Your task to perform on an android device: check android version Image 0: 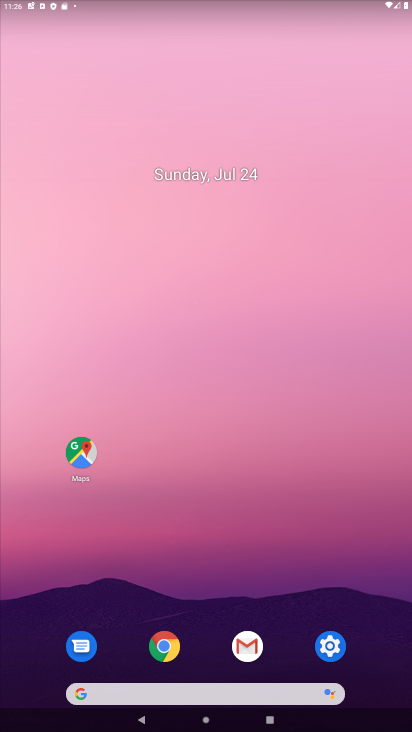
Step 0: click (323, 646)
Your task to perform on an android device: check android version Image 1: 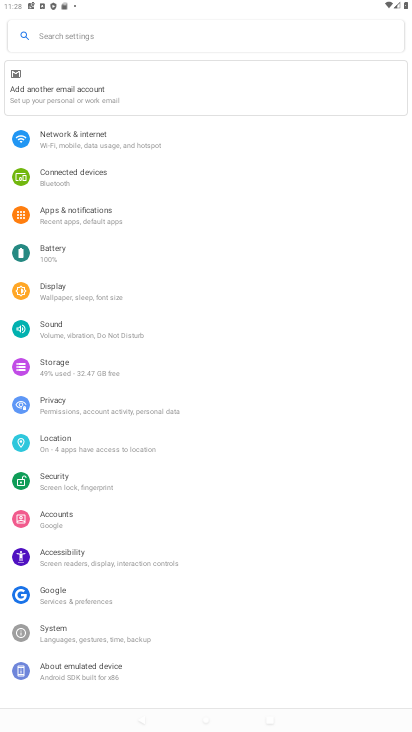
Step 1: click (91, 33)
Your task to perform on an android device: check android version Image 2: 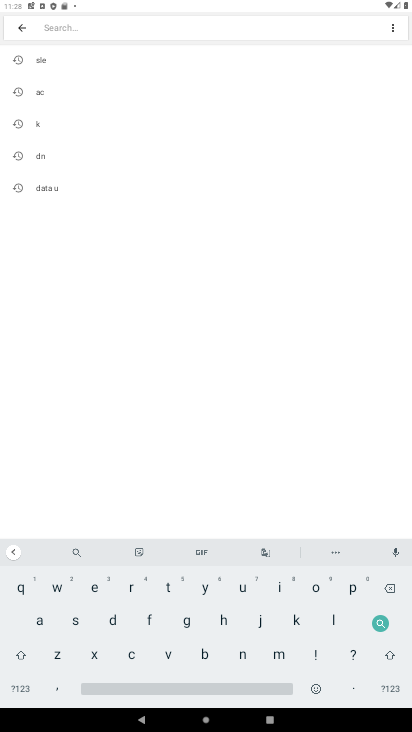
Step 2: click (39, 612)
Your task to perform on an android device: check android version Image 3: 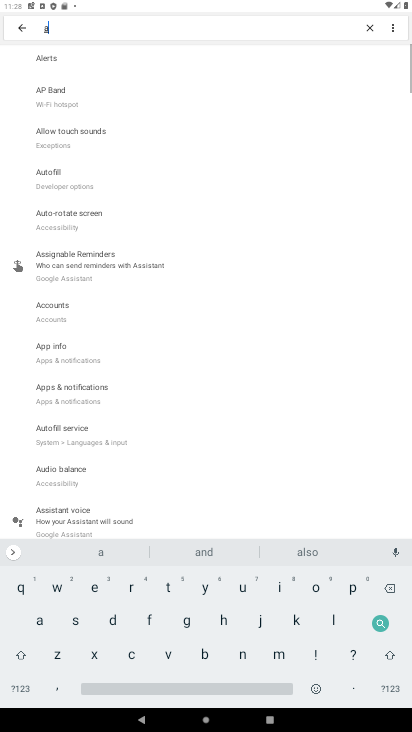
Step 3: click (232, 653)
Your task to perform on an android device: check android version Image 4: 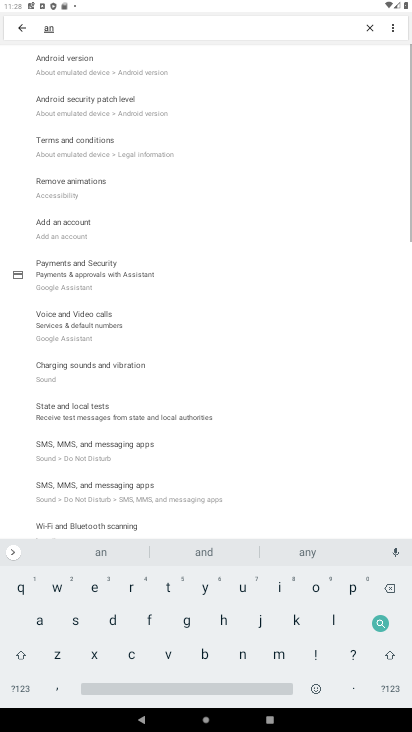
Step 4: click (100, 61)
Your task to perform on an android device: check android version Image 5: 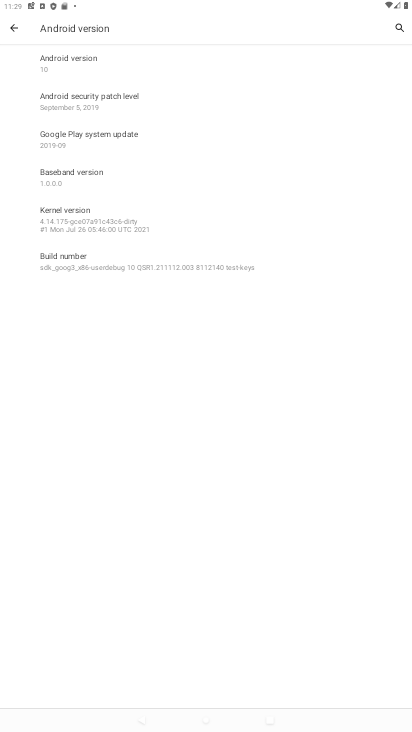
Step 5: task complete